Your task to perform on an android device: Open sound settings Image 0: 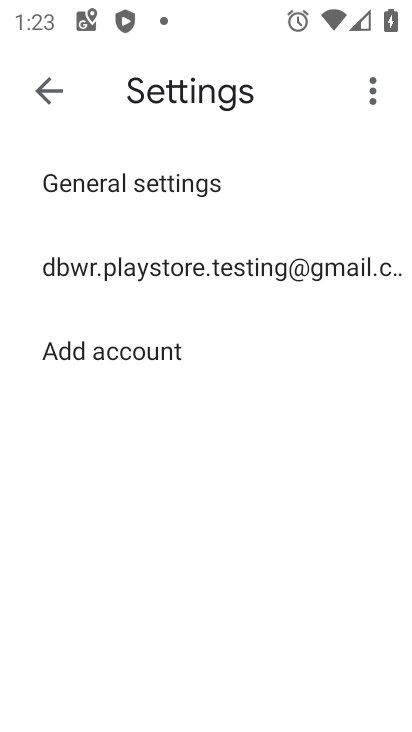
Step 0: press home button
Your task to perform on an android device: Open sound settings Image 1: 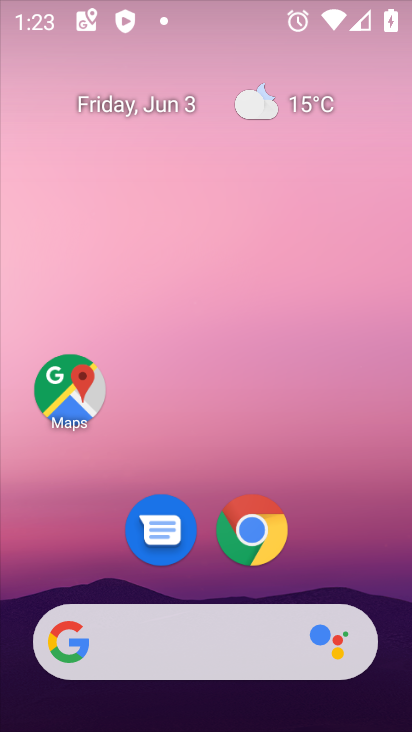
Step 1: drag from (308, 306) to (298, 84)
Your task to perform on an android device: Open sound settings Image 2: 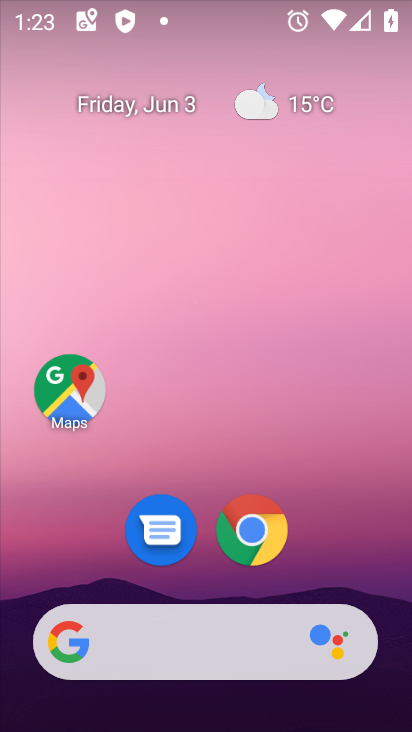
Step 2: drag from (354, 568) to (303, 64)
Your task to perform on an android device: Open sound settings Image 3: 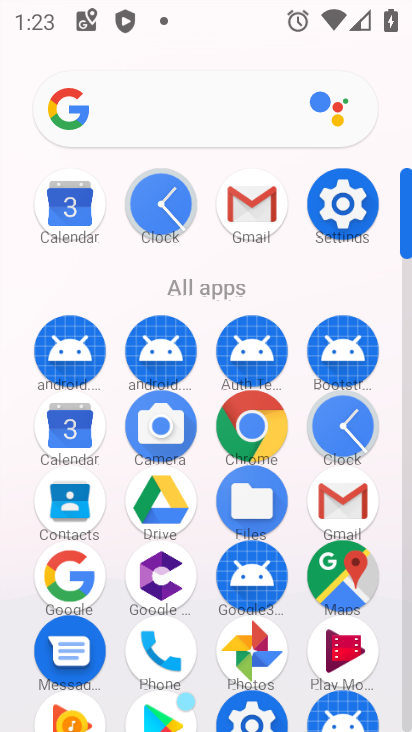
Step 3: click (336, 186)
Your task to perform on an android device: Open sound settings Image 4: 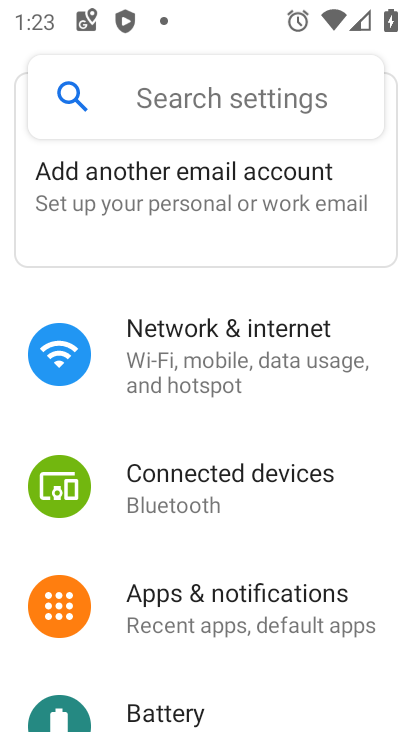
Step 4: drag from (353, 701) to (305, 60)
Your task to perform on an android device: Open sound settings Image 5: 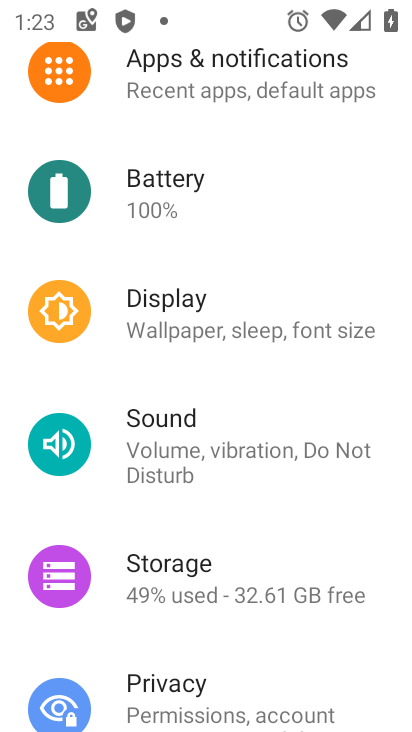
Step 5: click (222, 436)
Your task to perform on an android device: Open sound settings Image 6: 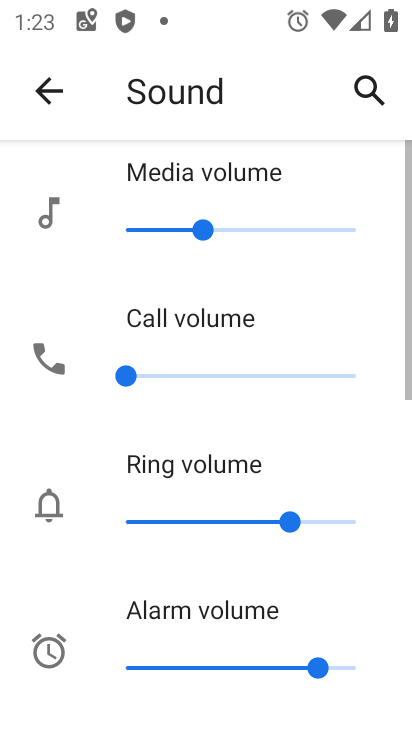
Step 6: task complete